Your task to perform on an android device: find which apps use the phone's location Image 0: 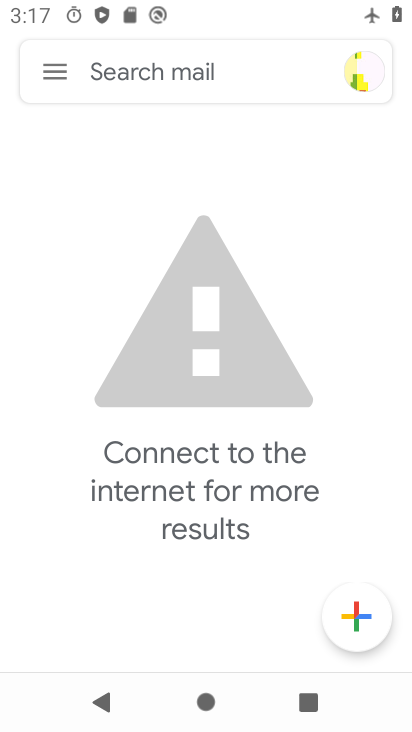
Step 0: press home button
Your task to perform on an android device: find which apps use the phone's location Image 1: 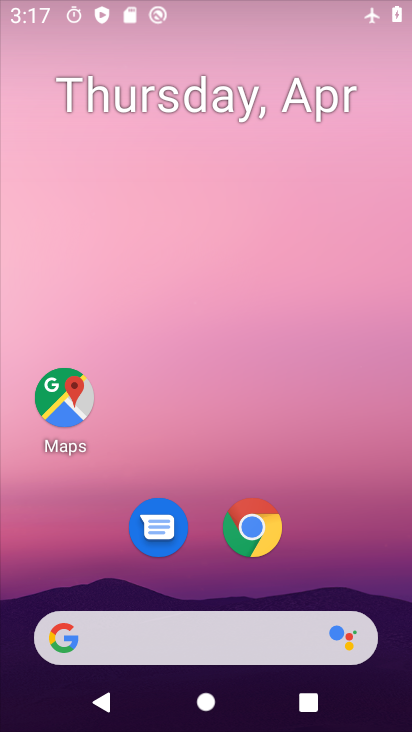
Step 1: drag from (245, 542) to (242, 147)
Your task to perform on an android device: find which apps use the phone's location Image 2: 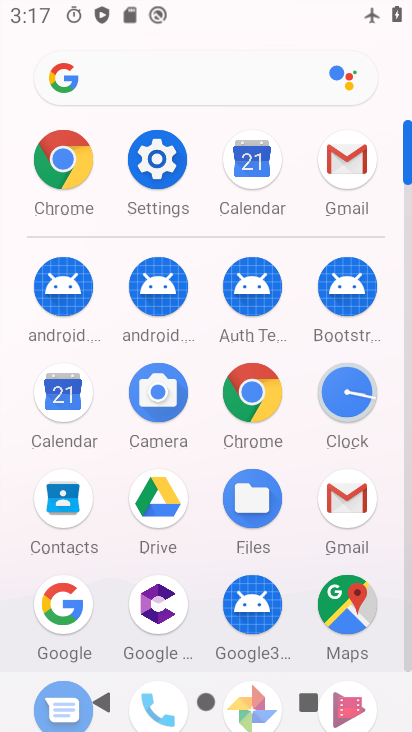
Step 2: click (162, 171)
Your task to perform on an android device: find which apps use the phone's location Image 3: 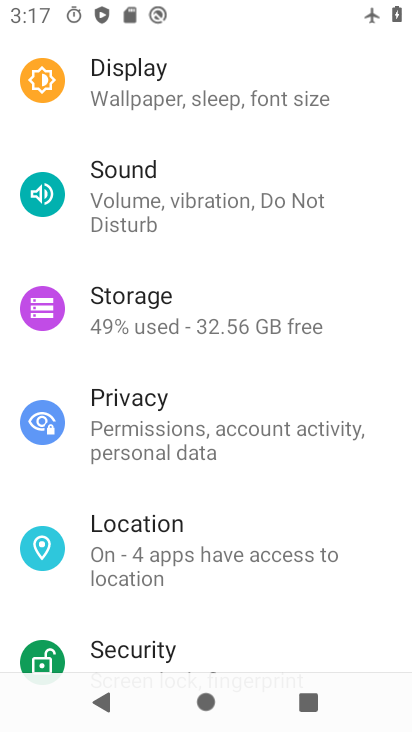
Step 3: drag from (215, 572) to (259, 256)
Your task to perform on an android device: find which apps use the phone's location Image 4: 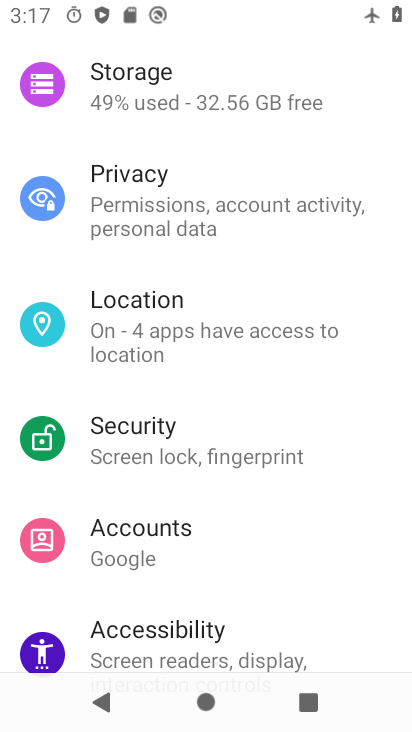
Step 4: click (179, 304)
Your task to perform on an android device: find which apps use the phone's location Image 5: 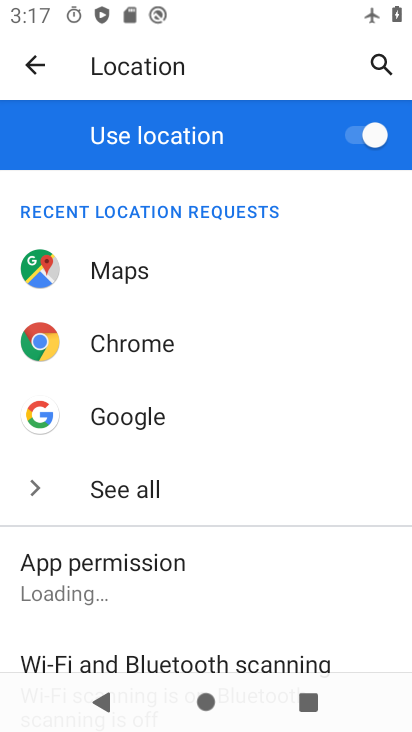
Step 5: click (133, 579)
Your task to perform on an android device: find which apps use the phone's location Image 6: 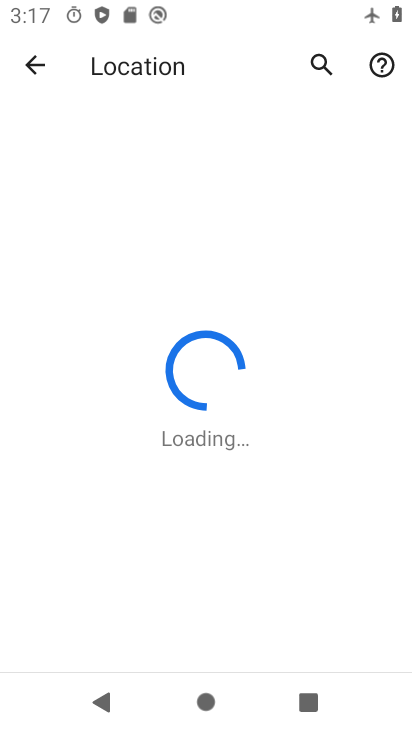
Step 6: drag from (166, 574) to (199, 238)
Your task to perform on an android device: find which apps use the phone's location Image 7: 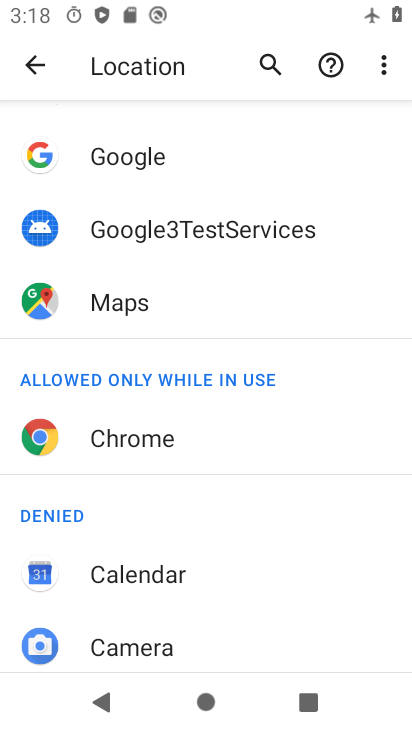
Step 7: drag from (228, 496) to (255, 613)
Your task to perform on an android device: find which apps use the phone's location Image 8: 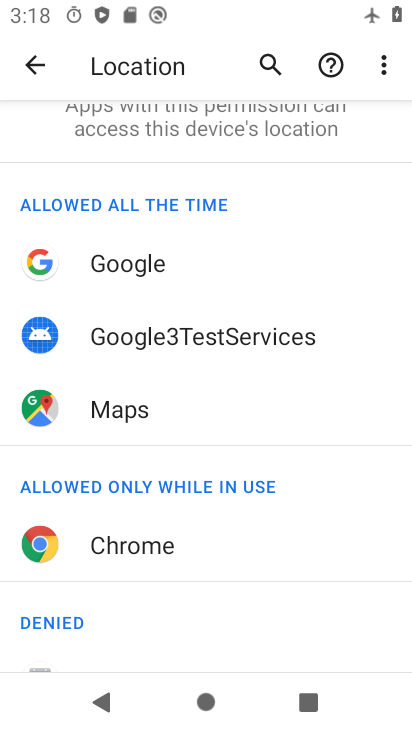
Step 8: click (253, 562)
Your task to perform on an android device: find which apps use the phone's location Image 9: 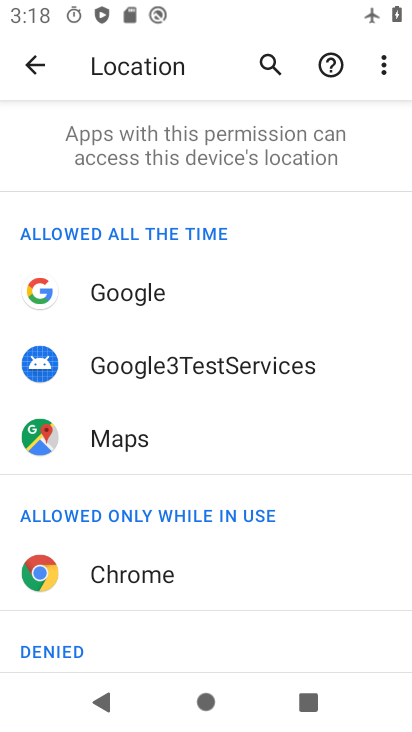
Step 9: task complete